Your task to perform on an android device: Go to CNN.com Image 0: 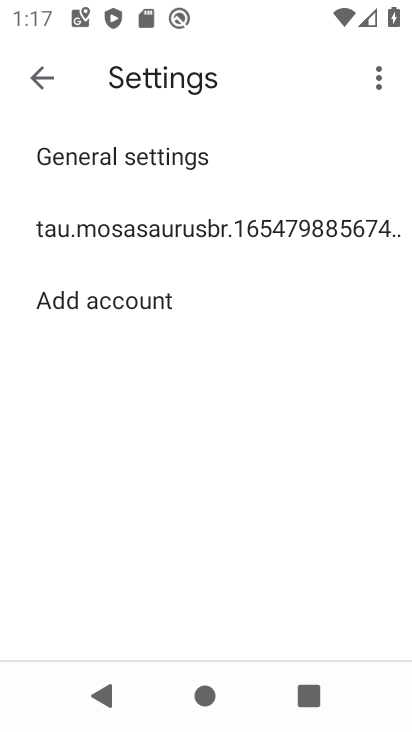
Step 0: press back button
Your task to perform on an android device: Go to CNN.com Image 1: 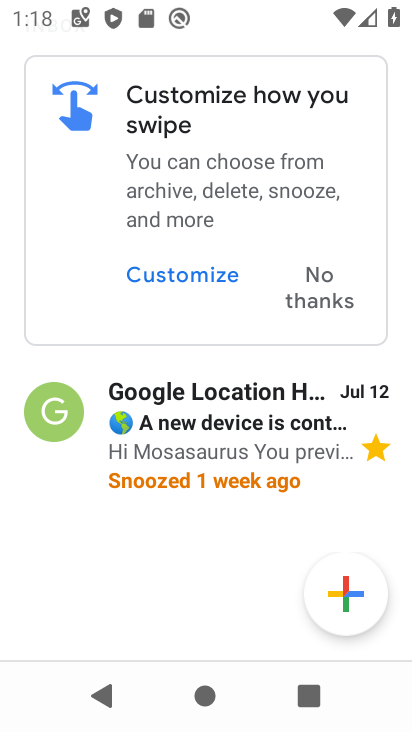
Step 1: press back button
Your task to perform on an android device: Go to CNN.com Image 2: 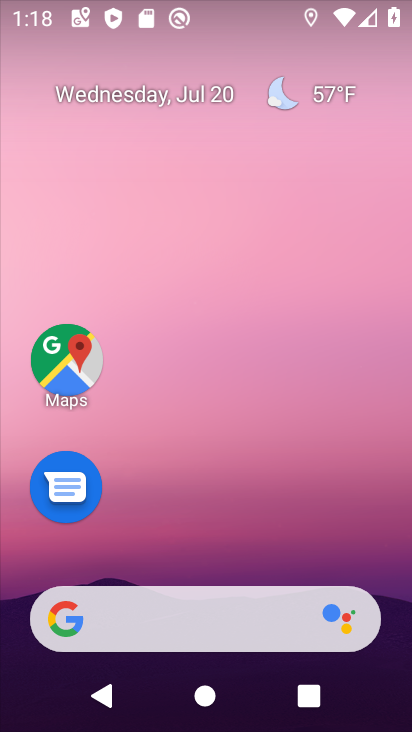
Step 2: drag from (174, 578) to (194, 8)
Your task to perform on an android device: Go to CNN.com Image 3: 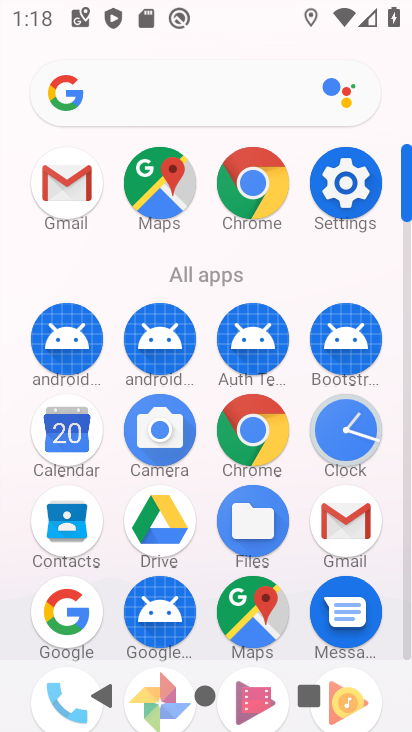
Step 3: click (257, 206)
Your task to perform on an android device: Go to CNN.com Image 4: 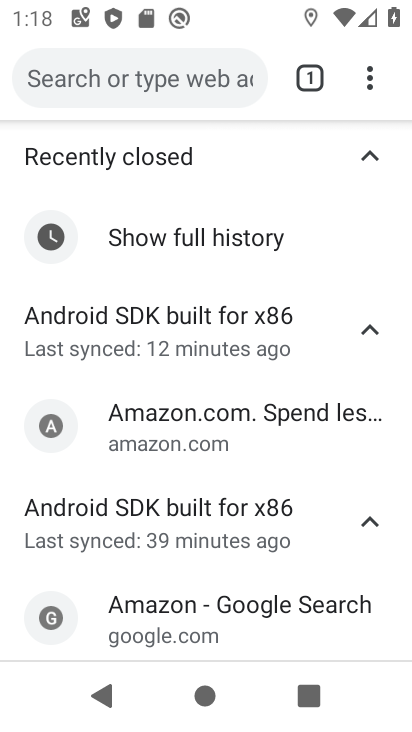
Step 4: click (309, 83)
Your task to perform on an android device: Go to CNN.com Image 5: 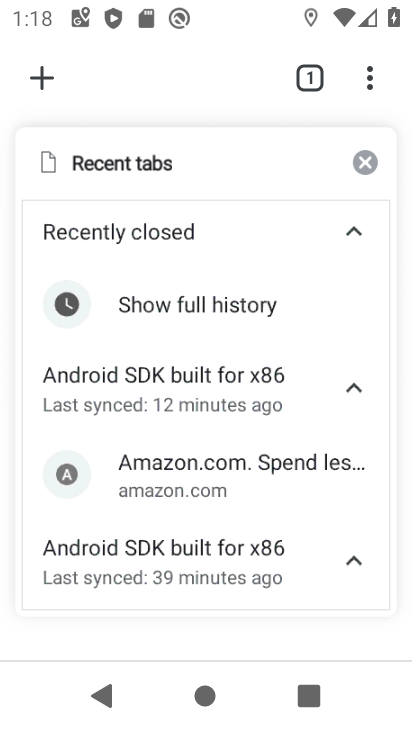
Step 5: click (49, 76)
Your task to perform on an android device: Go to CNN.com Image 6: 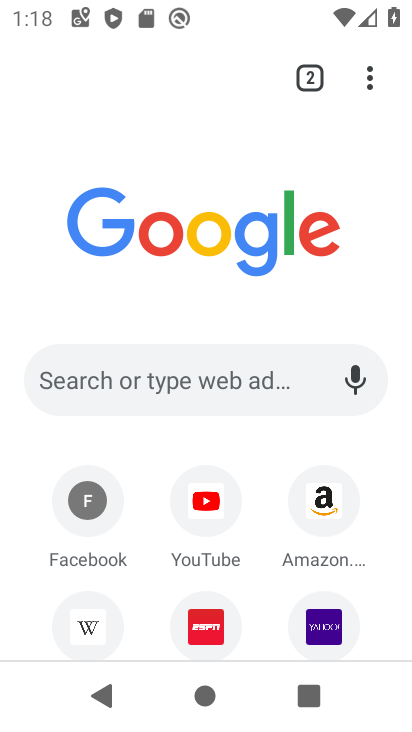
Step 6: click (173, 384)
Your task to perform on an android device: Go to CNN.com Image 7: 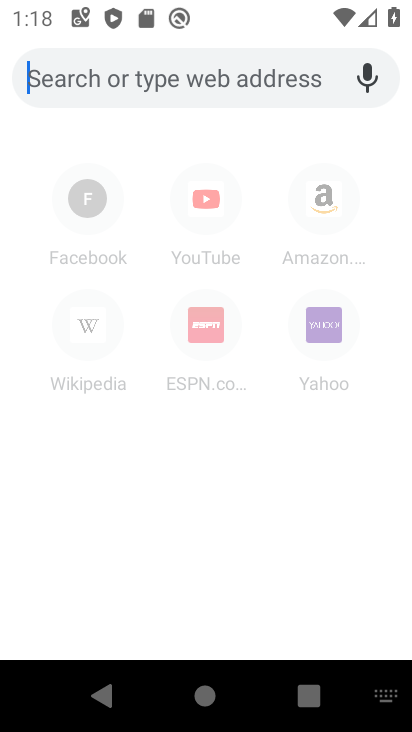
Step 7: type "cnn.com"
Your task to perform on an android device: Go to CNN.com Image 8: 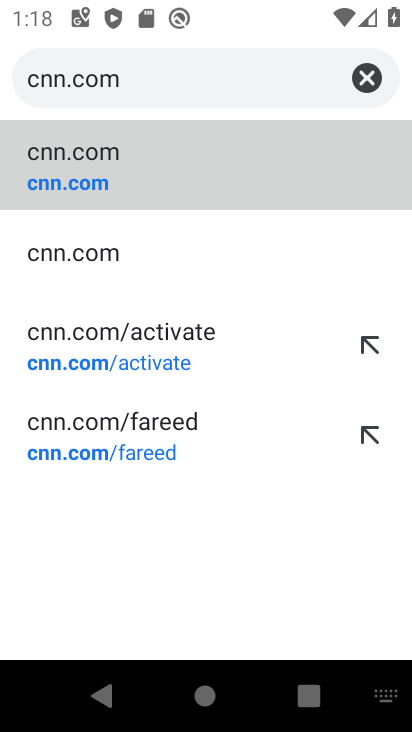
Step 8: click (126, 172)
Your task to perform on an android device: Go to CNN.com Image 9: 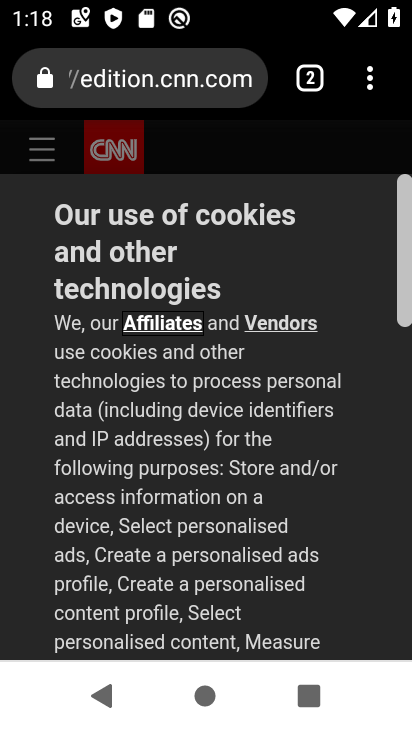
Step 9: task complete